Your task to perform on an android device: Turn off the flashlight Image 0: 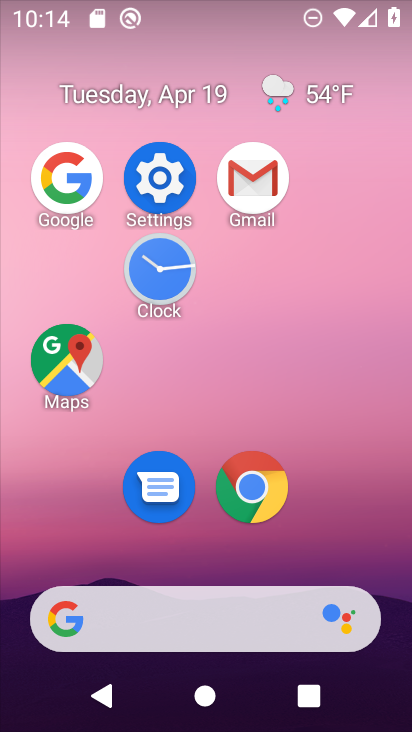
Step 0: drag from (234, 3) to (202, 382)
Your task to perform on an android device: Turn off the flashlight Image 1: 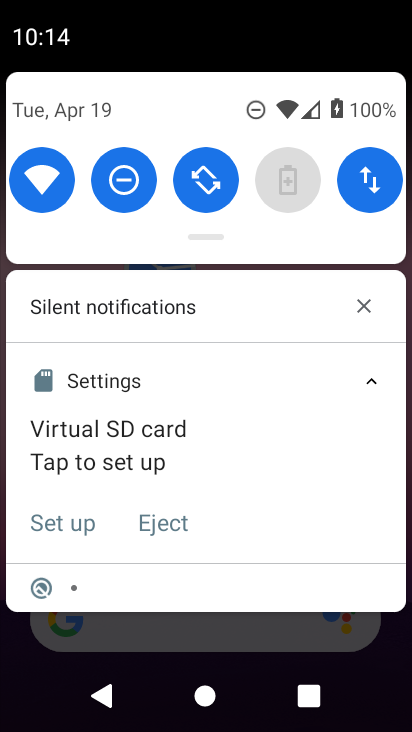
Step 1: task complete